Your task to perform on an android device: Go to display settings Image 0: 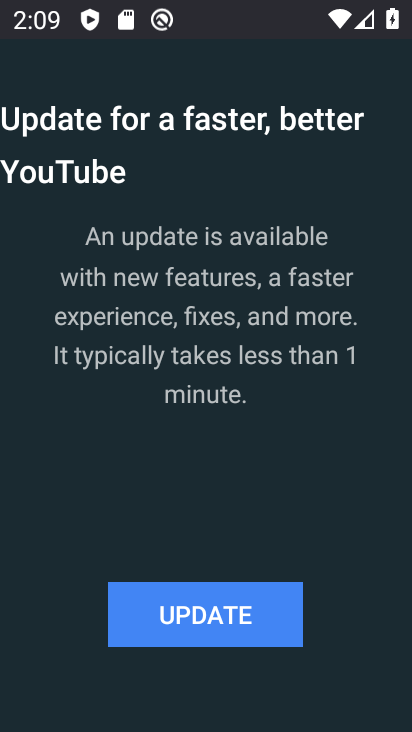
Step 0: press back button
Your task to perform on an android device: Go to display settings Image 1: 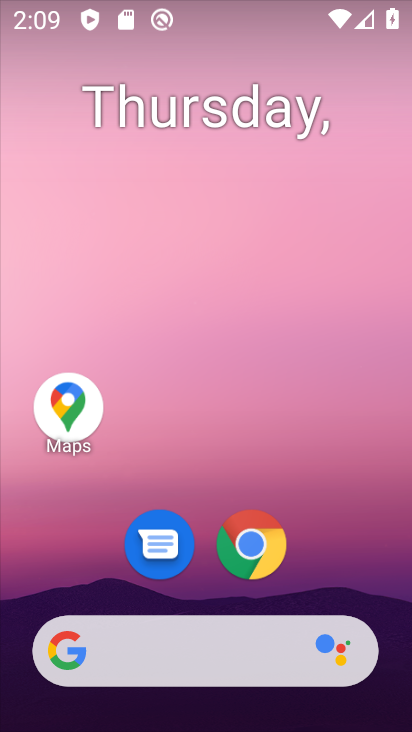
Step 1: drag from (330, 556) to (258, 196)
Your task to perform on an android device: Go to display settings Image 2: 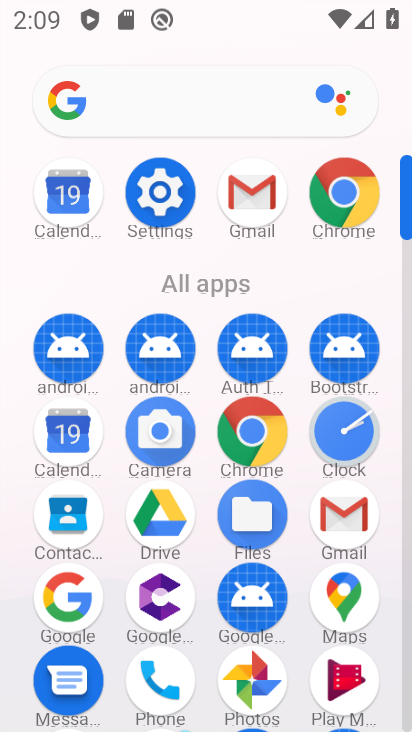
Step 2: click (160, 210)
Your task to perform on an android device: Go to display settings Image 3: 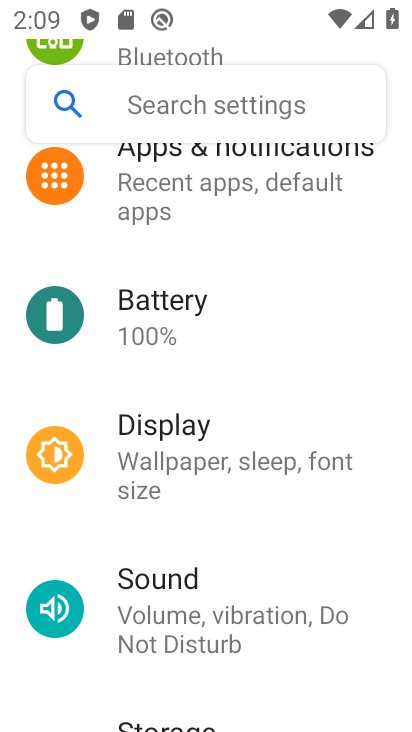
Step 3: click (206, 473)
Your task to perform on an android device: Go to display settings Image 4: 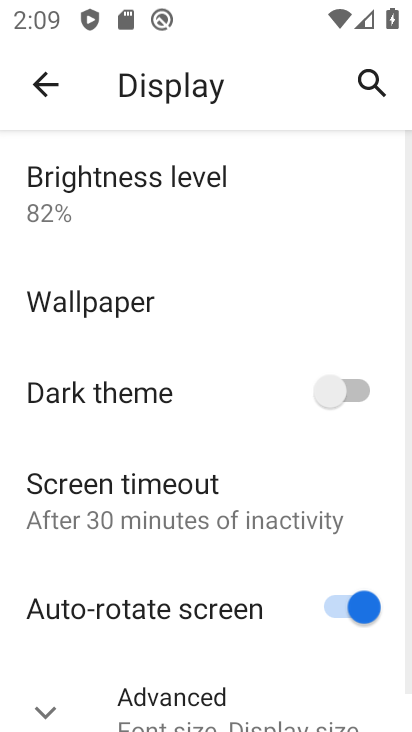
Step 4: click (152, 697)
Your task to perform on an android device: Go to display settings Image 5: 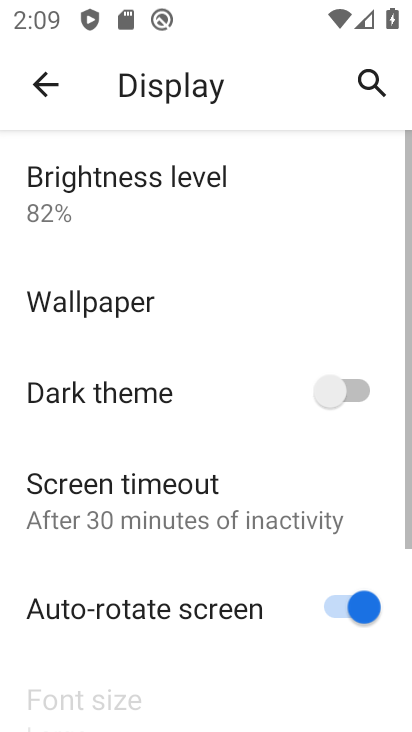
Step 5: task complete